Your task to perform on an android device: Open display settings Image 0: 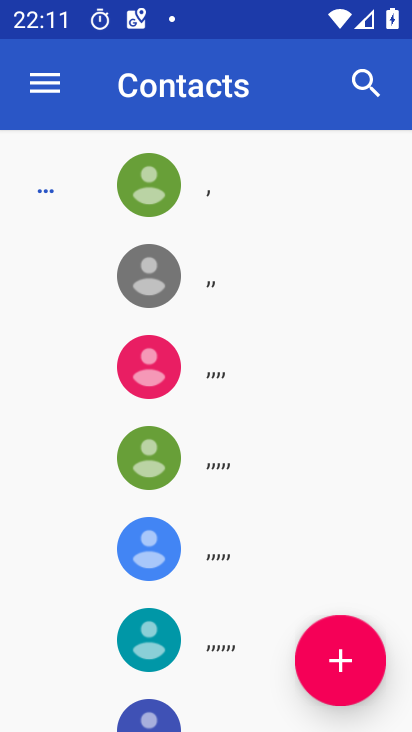
Step 0: press home button
Your task to perform on an android device: Open display settings Image 1: 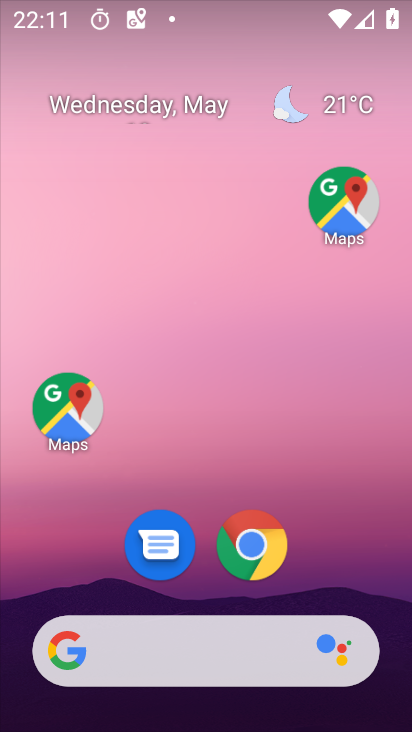
Step 1: drag from (331, 582) to (204, 19)
Your task to perform on an android device: Open display settings Image 2: 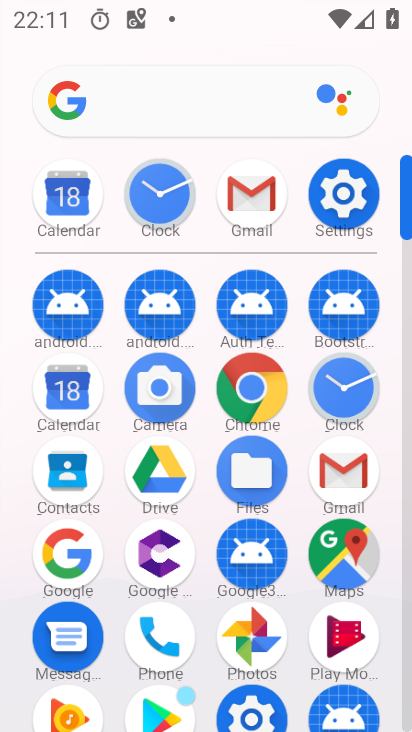
Step 2: click (339, 188)
Your task to perform on an android device: Open display settings Image 3: 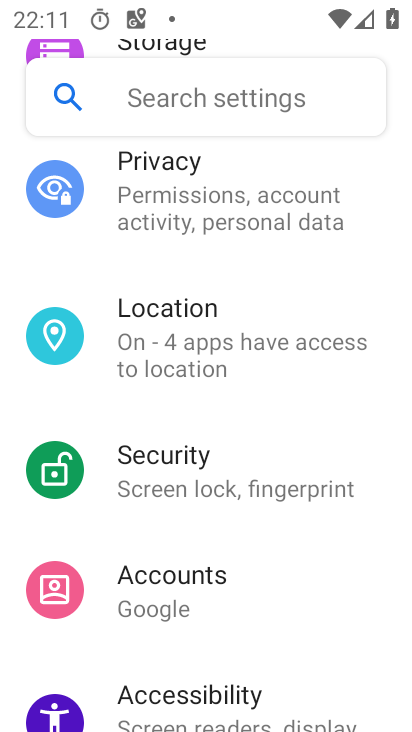
Step 3: drag from (201, 265) to (232, 365)
Your task to perform on an android device: Open display settings Image 4: 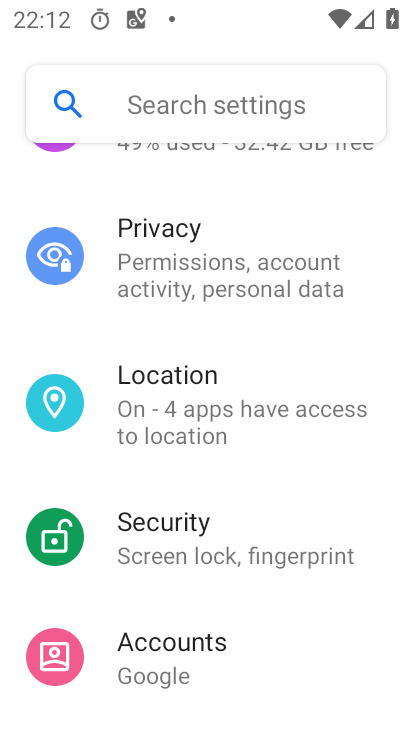
Step 4: drag from (190, 263) to (214, 352)
Your task to perform on an android device: Open display settings Image 5: 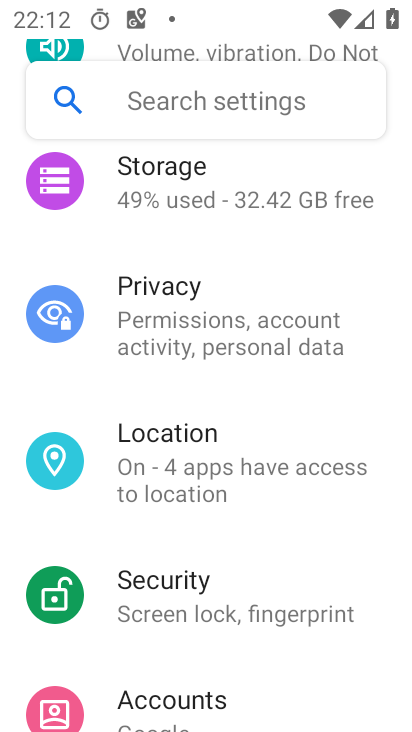
Step 5: drag from (202, 288) to (221, 350)
Your task to perform on an android device: Open display settings Image 6: 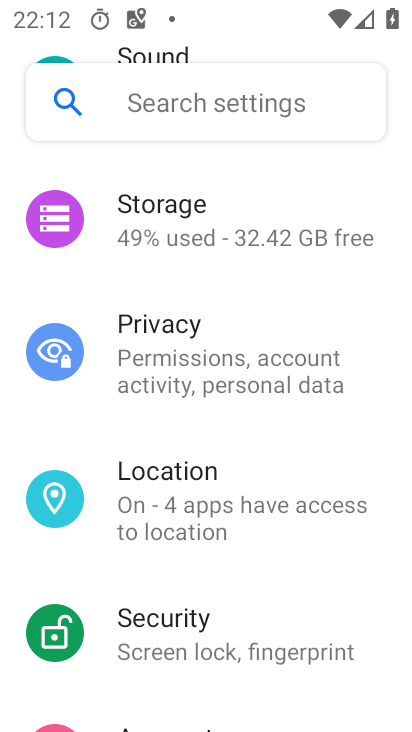
Step 6: drag from (204, 329) to (216, 415)
Your task to perform on an android device: Open display settings Image 7: 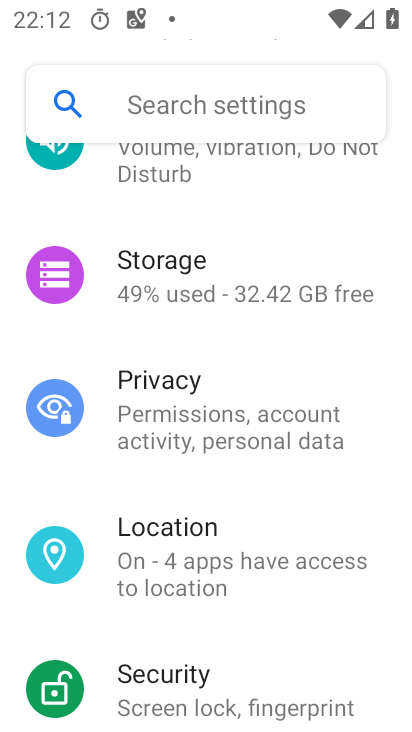
Step 7: drag from (164, 317) to (163, 424)
Your task to perform on an android device: Open display settings Image 8: 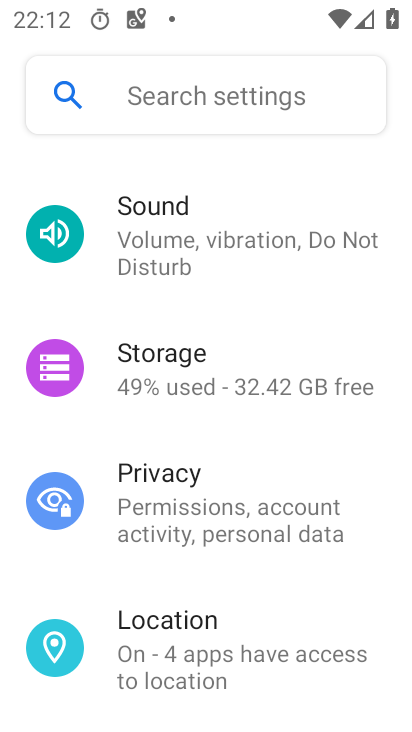
Step 8: drag from (153, 324) to (166, 410)
Your task to perform on an android device: Open display settings Image 9: 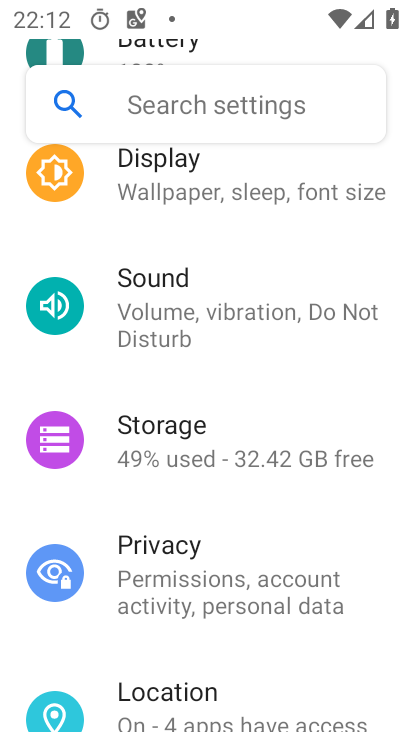
Step 9: drag from (189, 298) to (193, 395)
Your task to perform on an android device: Open display settings Image 10: 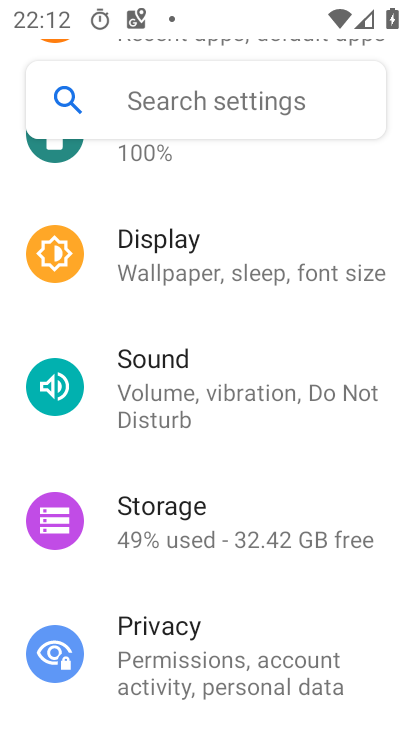
Step 10: drag from (185, 304) to (218, 405)
Your task to perform on an android device: Open display settings Image 11: 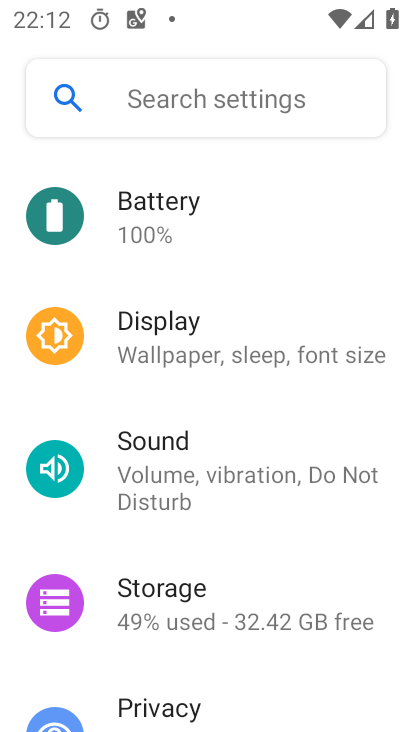
Step 11: click (205, 318)
Your task to perform on an android device: Open display settings Image 12: 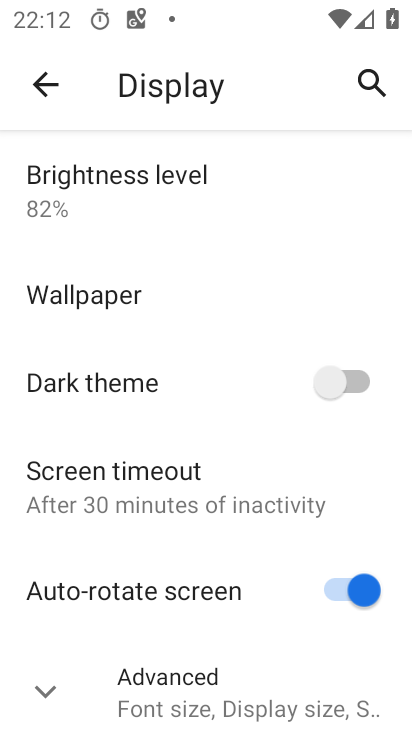
Step 12: task complete